Your task to perform on an android device: Show me productivity apps on the Play Store Image 0: 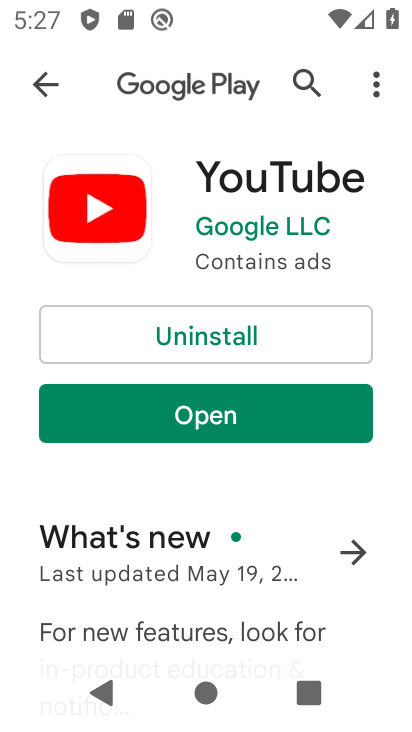
Step 0: drag from (394, 667) to (410, 562)
Your task to perform on an android device: Show me productivity apps on the Play Store Image 1: 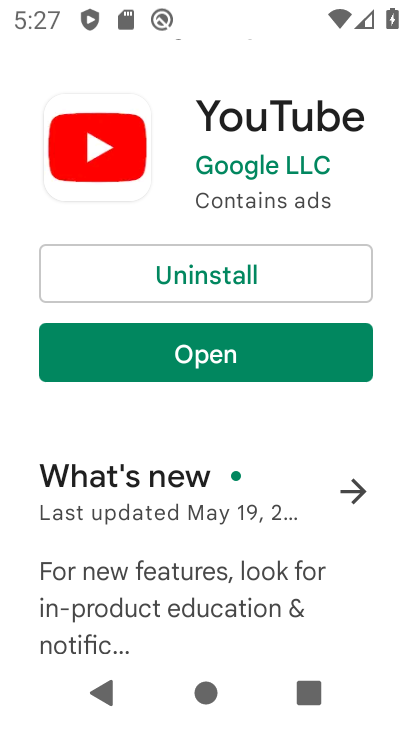
Step 1: press home button
Your task to perform on an android device: Show me productivity apps on the Play Store Image 2: 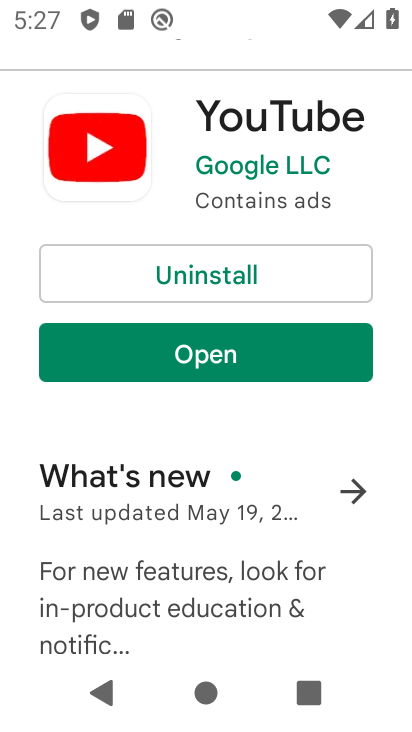
Step 2: click (410, 562)
Your task to perform on an android device: Show me productivity apps on the Play Store Image 3: 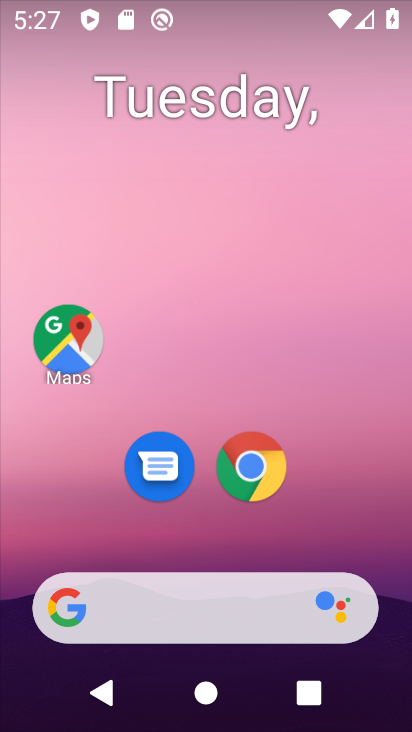
Step 3: drag from (338, 549) to (379, 38)
Your task to perform on an android device: Show me productivity apps on the Play Store Image 4: 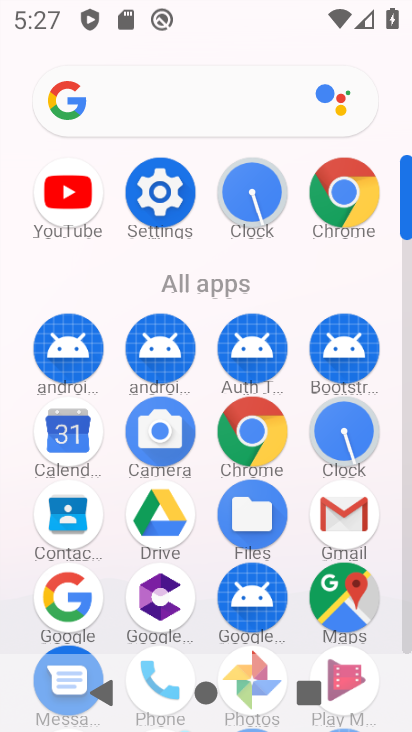
Step 4: click (405, 625)
Your task to perform on an android device: Show me productivity apps on the Play Store Image 5: 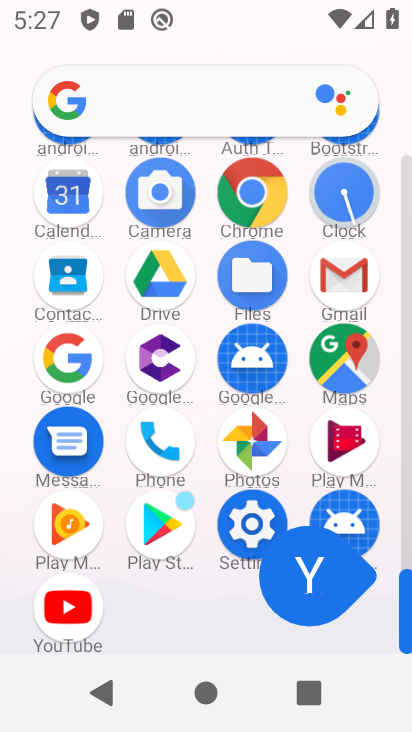
Step 5: click (405, 646)
Your task to perform on an android device: Show me productivity apps on the Play Store Image 6: 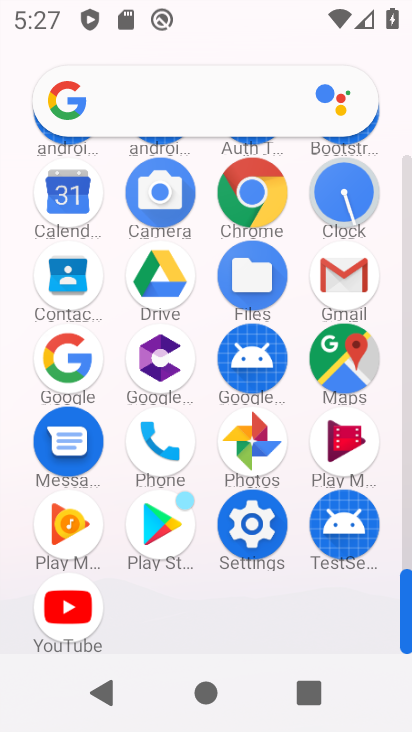
Step 6: click (167, 521)
Your task to perform on an android device: Show me productivity apps on the Play Store Image 7: 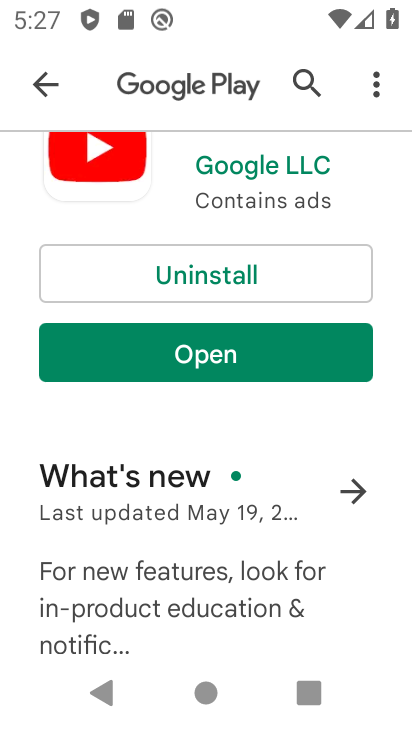
Step 7: click (38, 80)
Your task to perform on an android device: Show me productivity apps on the Play Store Image 8: 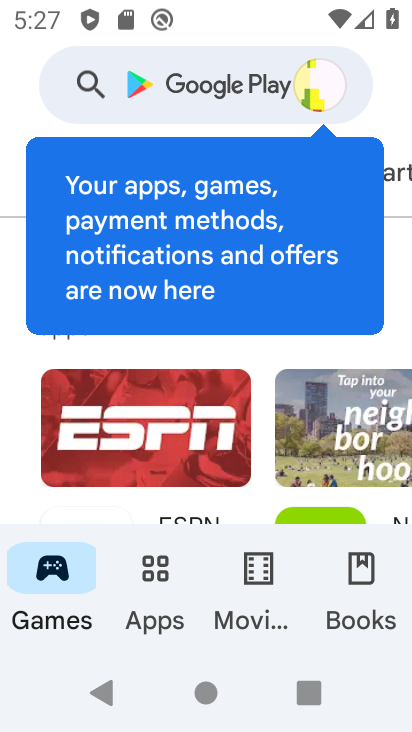
Step 8: click (162, 94)
Your task to perform on an android device: Show me productivity apps on the Play Store Image 9: 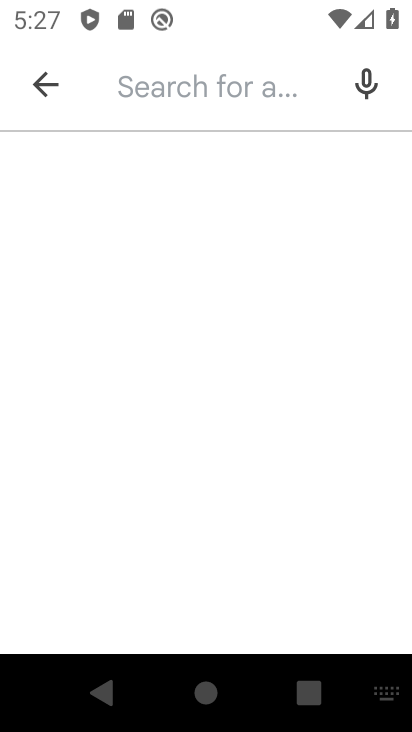
Step 9: type " productivity apps "
Your task to perform on an android device: Show me productivity apps on the Play Store Image 10: 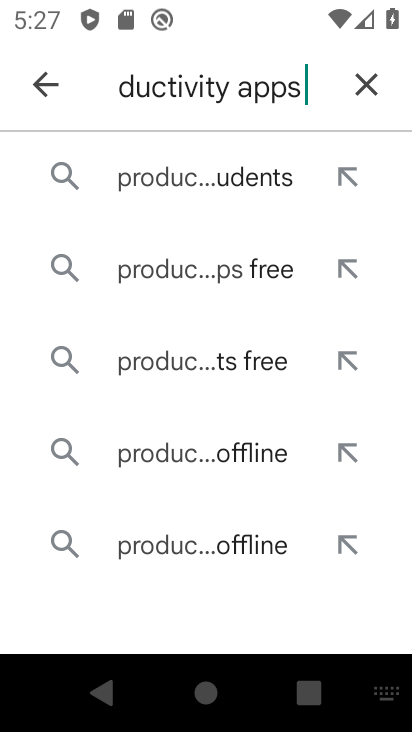
Step 10: click (230, 189)
Your task to perform on an android device: Show me productivity apps on the Play Store Image 11: 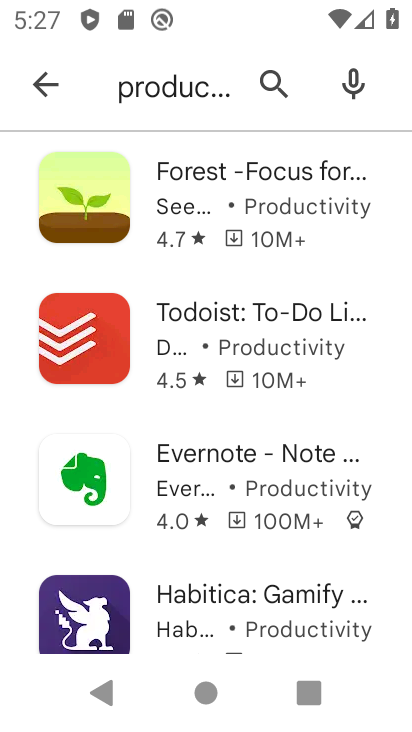
Step 11: task complete